Your task to perform on an android device: turn off picture-in-picture Image 0: 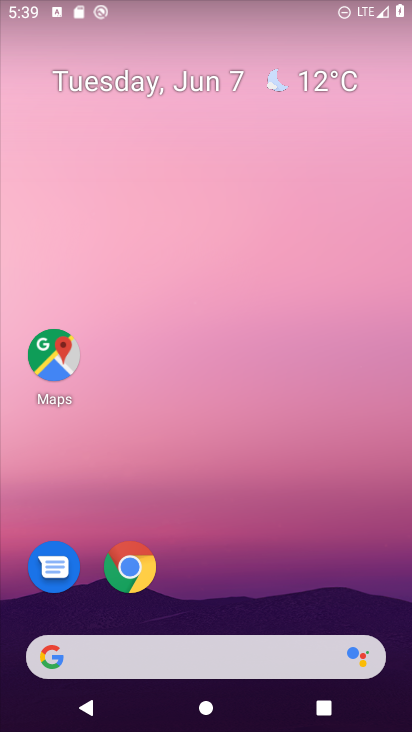
Step 0: drag from (268, 534) to (300, 13)
Your task to perform on an android device: turn off picture-in-picture Image 1: 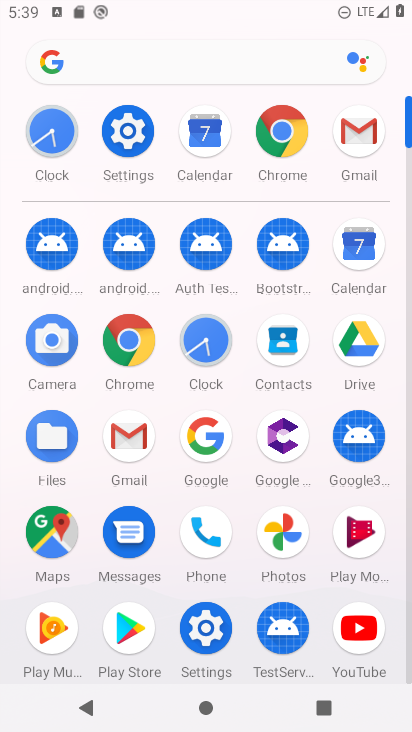
Step 1: click (128, 121)
Your task to perform on an android device: turn off picture-in-picture Image 2: 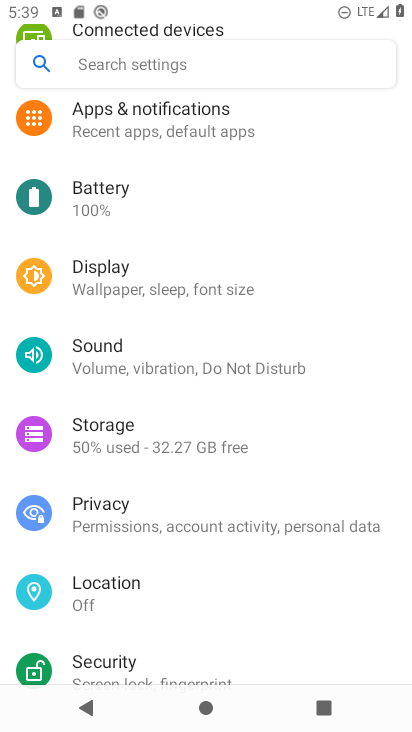
Step 2: click (197, 130)
Your task to perform on an android device: turn off picture-in-picture Image 3: 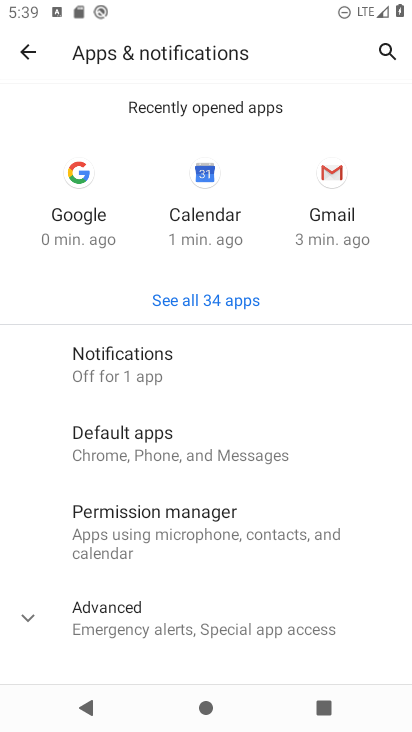
Step 3: click (196, 629)
Your task to perform on an android device: turn off picture-in-picture Image 4: 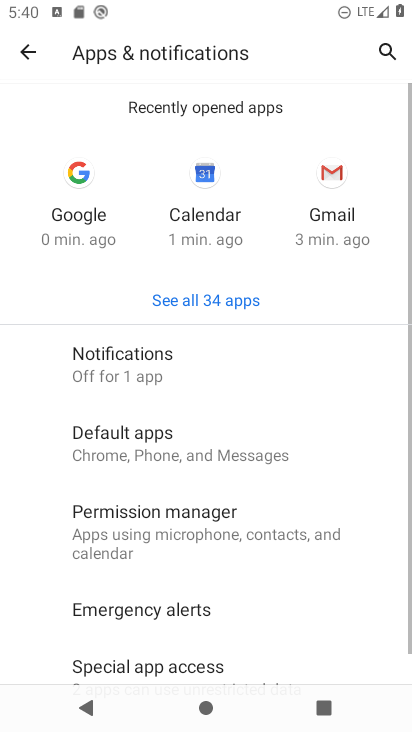
Step 4: drag from (260, 624) to (325, 239)
Your task to perform on an android device: turn off picture-in-picture Image 5: 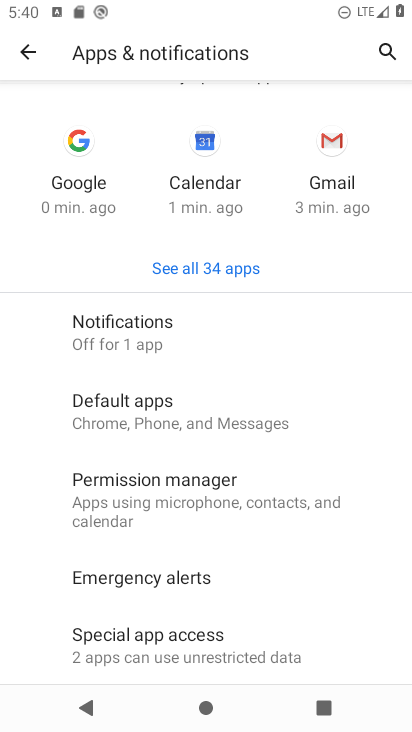
Step 5: click (235, 646)
Your task to perform on an android device: turn off picture-in-picture Image 6: 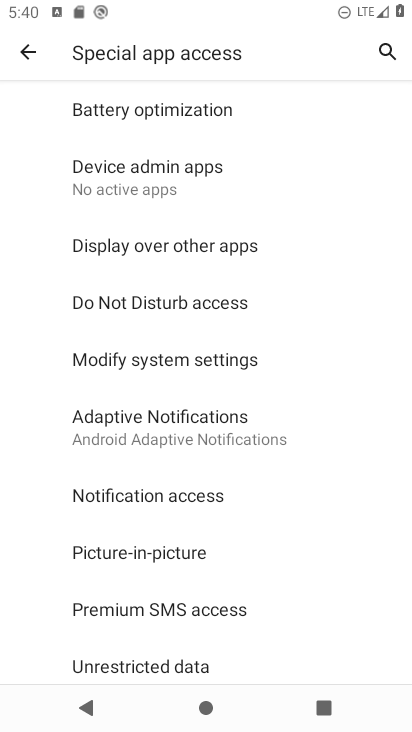
Step 6: click (170, 551)
Your task to perform on an android device: turn off picture-in-picture Image 7: 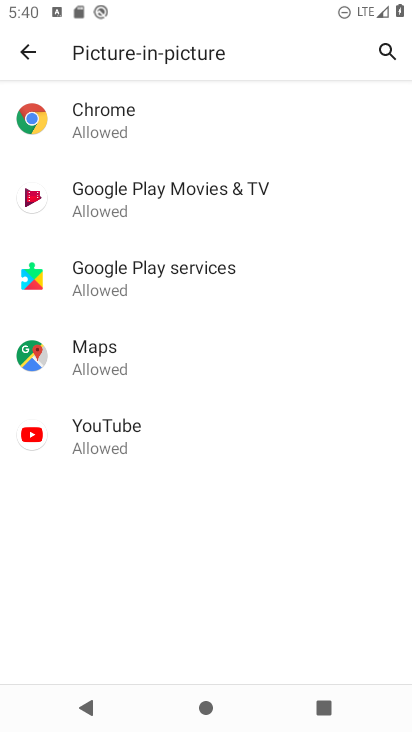
Step 7: click (273, 108)
Your task to perform on an android device: turn off picture-in-picture Image 8: 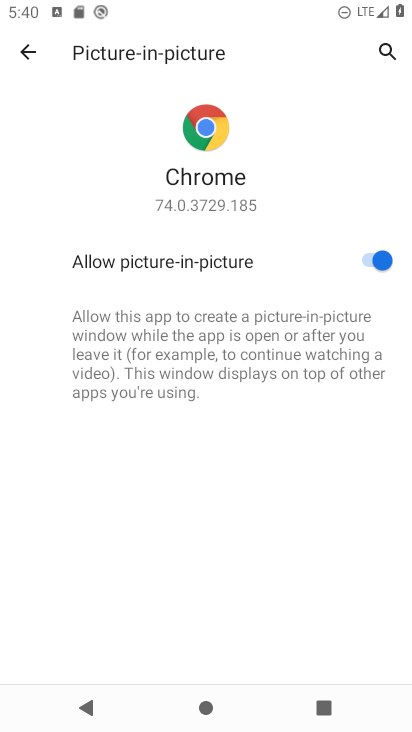
Step 8: click (366, 257)
Your task to perform on an android device: turn off picture-in-picture Image 9: 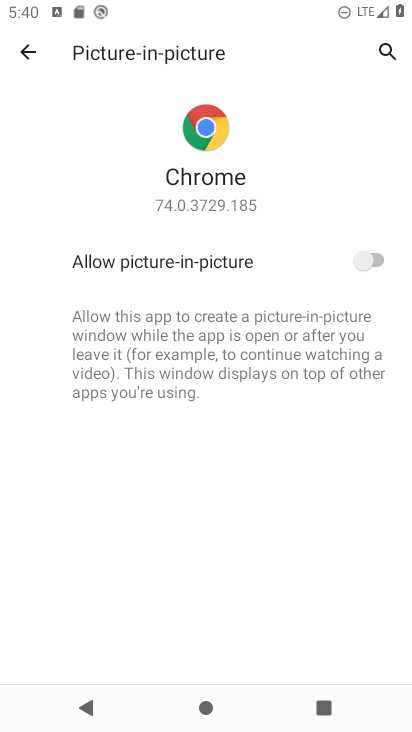
Step 9: press back button
Your task to perform on an android device: turn off picture-in-picture Image 10: 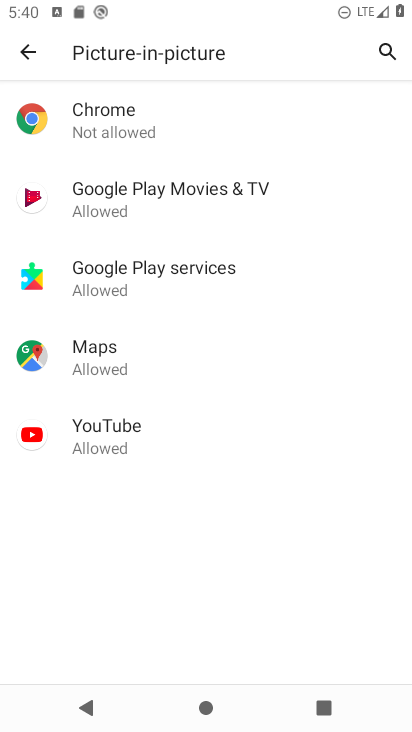
Step 10: click (301, 198)
Your task to perform on an android device: turn off picture-in-picture Image 11: 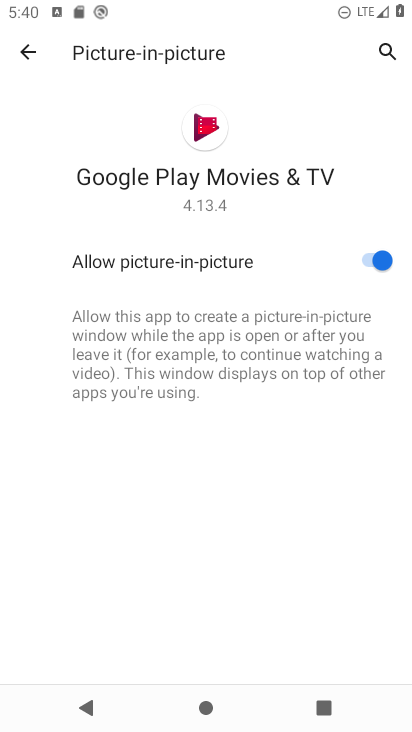
Step 11: click (362, 256)
Your task to perform on an android device: turn off picture-in-picture Image 12: 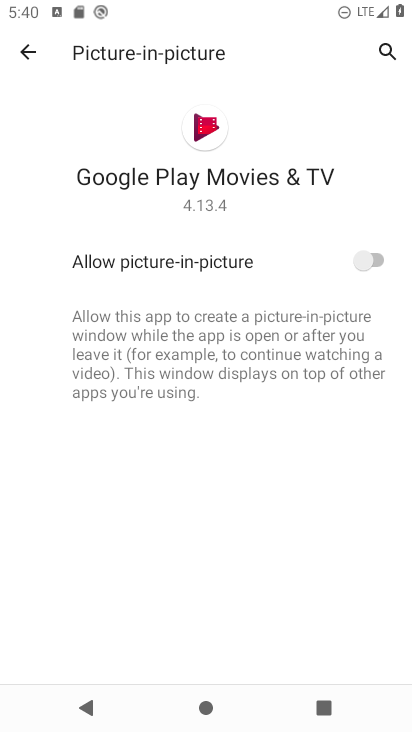
Step 12: press back button
Your task to perform on an android device: turn off picture-in-picture Image 13: 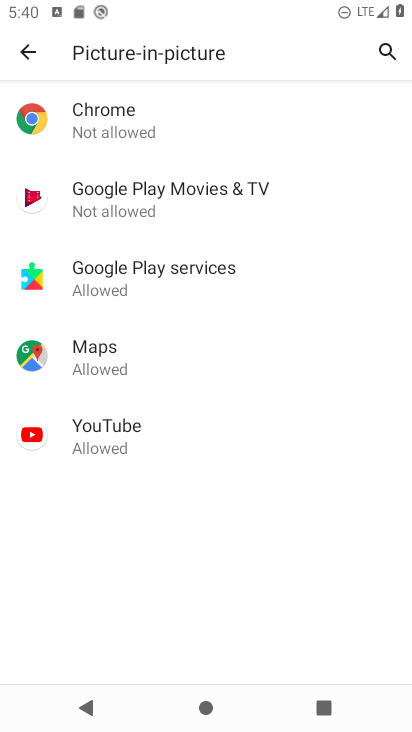
Step 13: click (289, 284)
Your task to perform on an android device: turn off picture-in-picture Image 14: 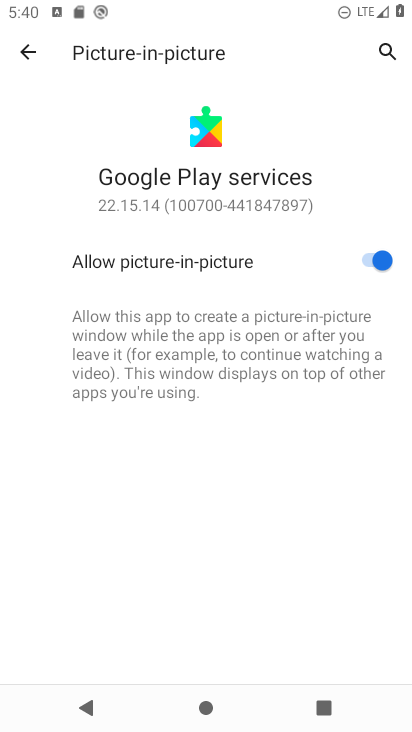
Step 14: click (364, 259)
Your task to perform on an android device: turn off picture-in-picture Image 15: 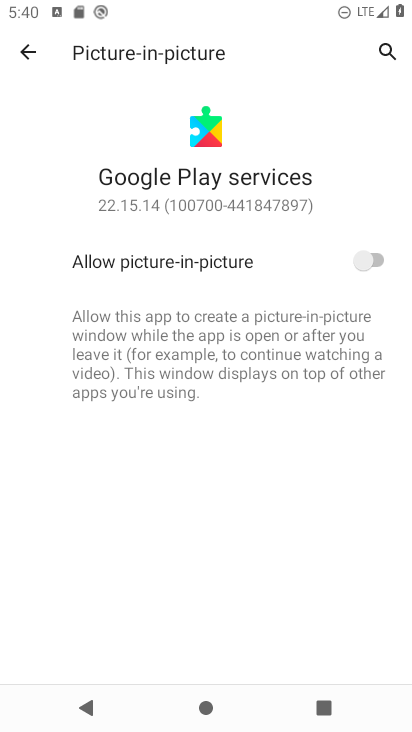
Step 15: press back button
Your task to perform on an android device: turn off picture-in-picture Image 16: 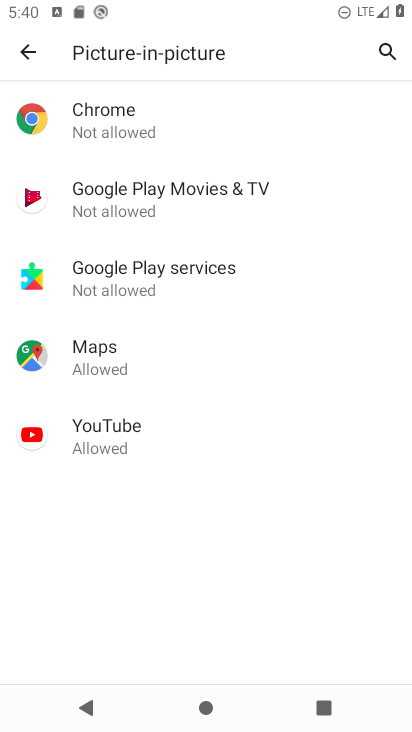
Step 16: click (262, 370)
Your task to perform on an android device: turn off picture-in-picture Image 17: 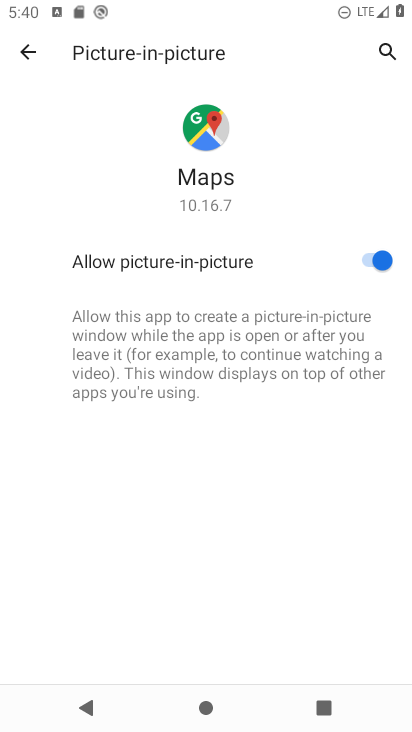
Step 17: click (367, 258)
Your task to perform on an android device: turn off picture-in-picture Image 18: 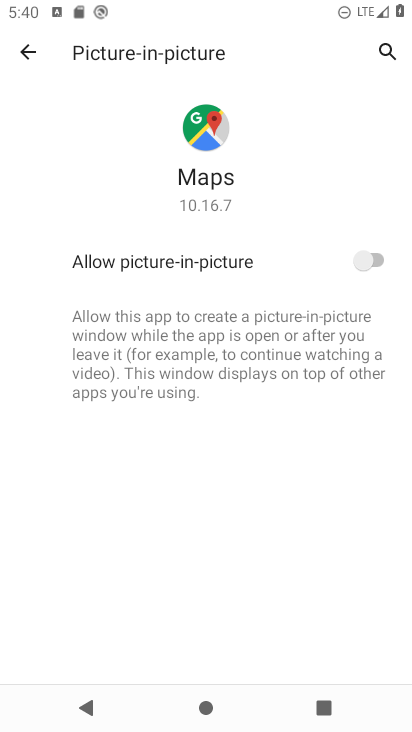
Step 18: press back button
Your task to perform on an android device: turn off picture-in-picture Image 19: 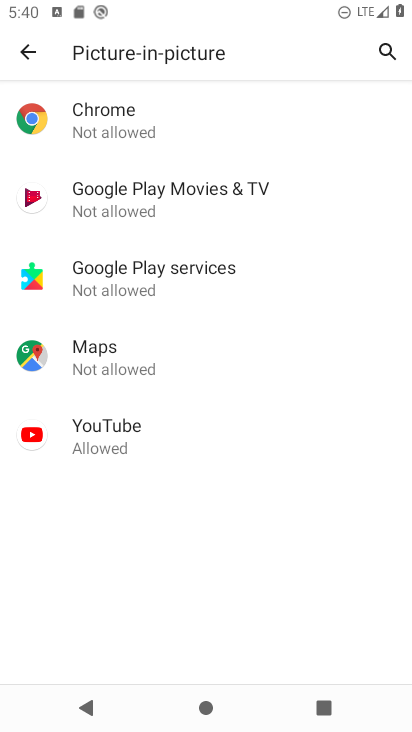
Step 19: click (188, 436)
Your task to perform on an android device: turn off picture-in-picture Image 20: 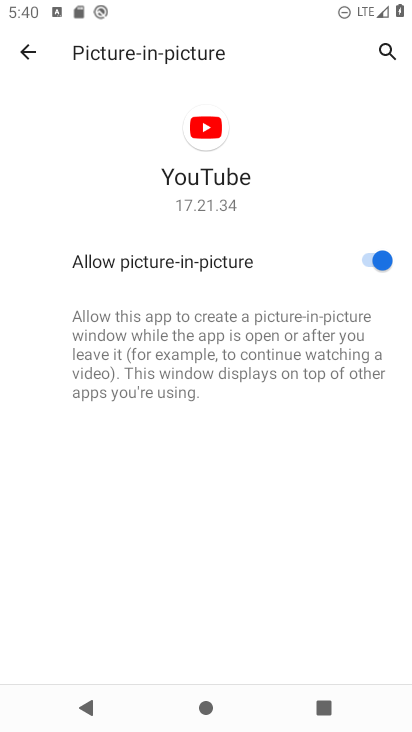
Step 20: click (377, 265)
Your task to perform on an android device: turn off picture-in-picture Image 21: 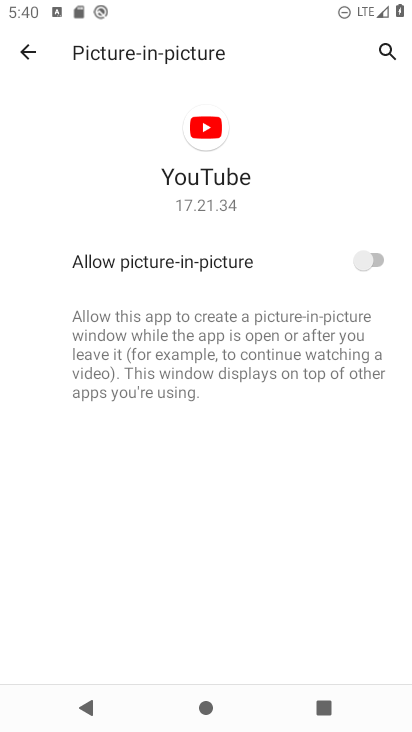
Step 21: task complete